Your task to perform on an android device: Set the phone to "Do not disturb". Image 0: 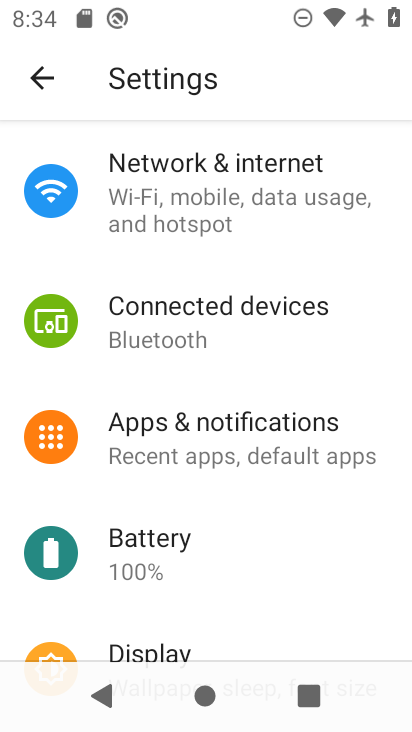
Step 0: press home button
Your task to perform on an android device: Set the phone to "Do not disturb". Image 1: 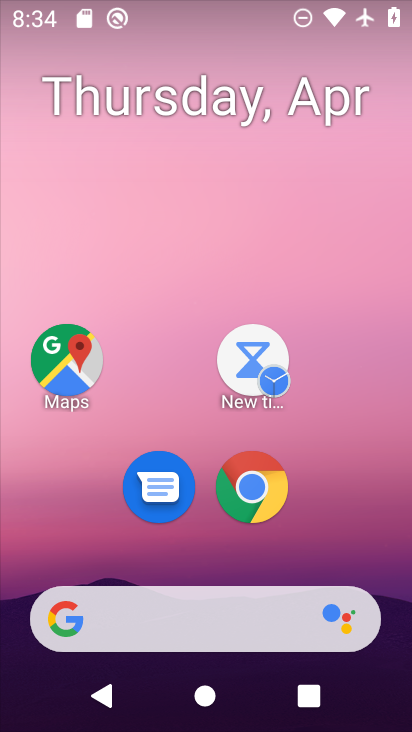
Step 1: drag from (316, 436) to (310, 116)
Your task to perform on an android device: Set the phone to "Do not disturb". Image 2: 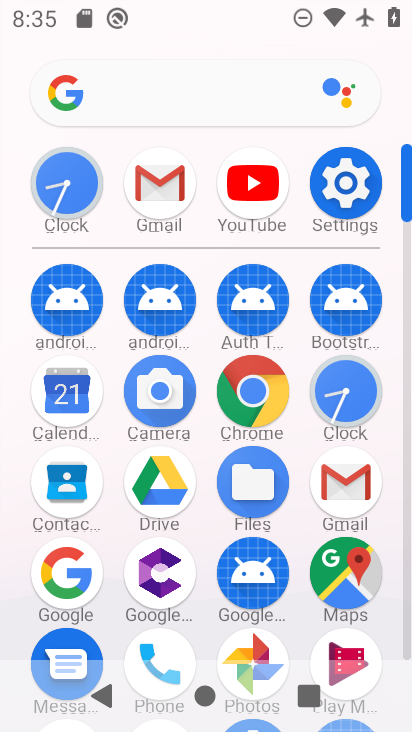
Step 2: click (333, 183)
Your task to perform on an android device: Set the phone to "Do not disturb". Image 3: 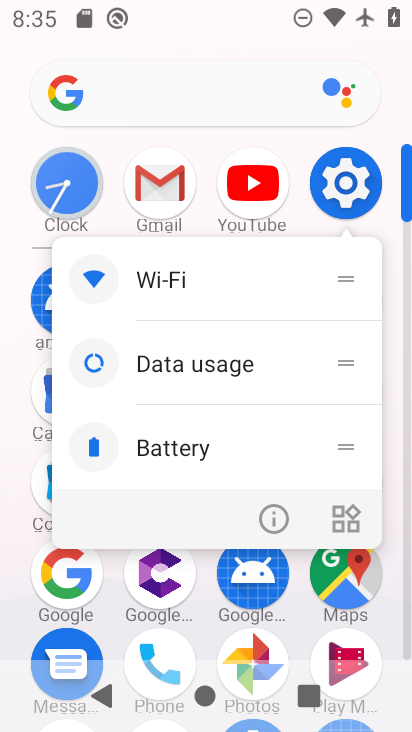
Step 3: click (333, 183)
Your task to perform on an android device: Set the phone to "Do not disturb". Image 4: 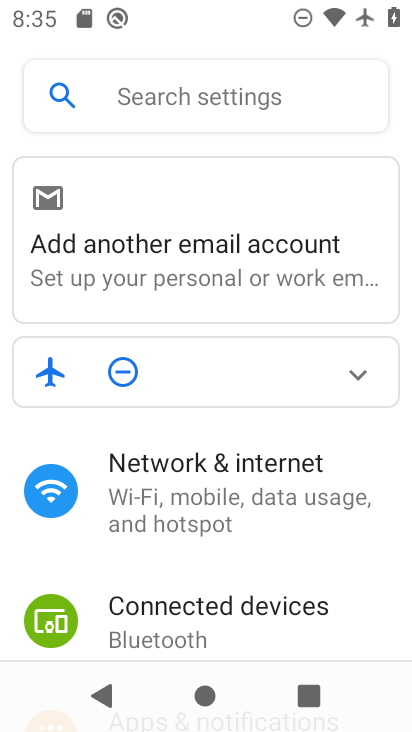
Step 4: drag from (257, 520) to (262, 154)
Your task to perform on an android device: Set the phone to "Do not disturb". Image 5: 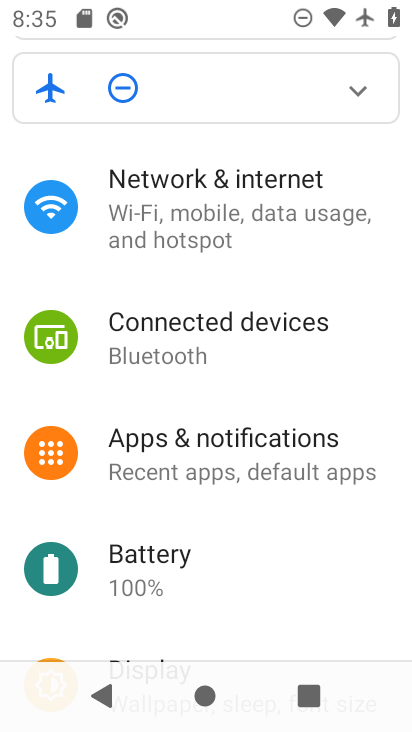
Step 5: drag from (250, 566) to (238, 193)
Your task to perform on an android device: Set the phone to "Do not disturb". Image 6: 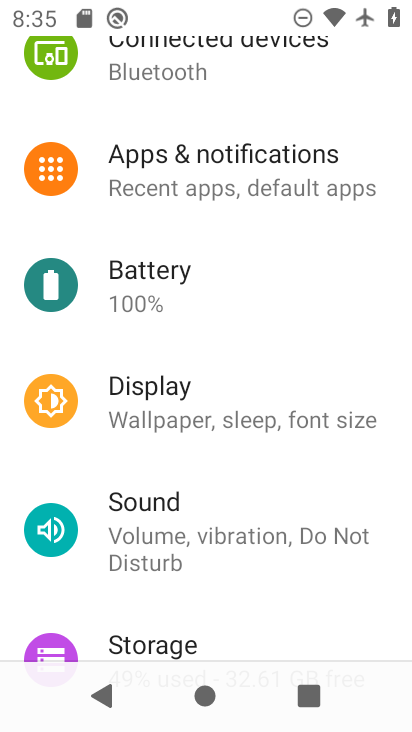
Step 6: click (225, 537)
Your task to perform on an android device: Set the phone to "Do not disturb". Image 7: 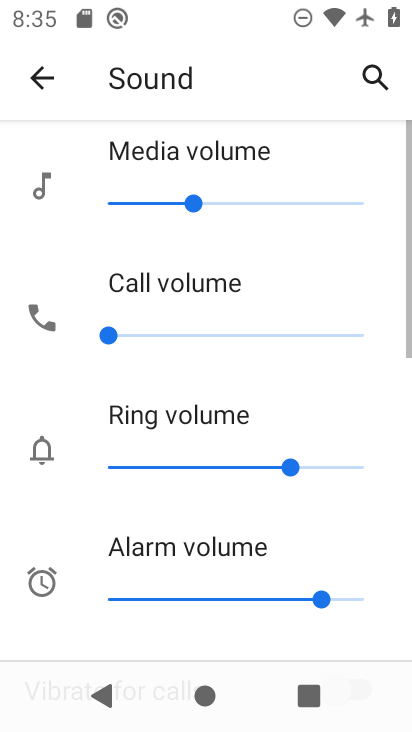
Step 7: drag from (149, 619) to (139, 168)
Your task to perform on an android device: Set the phone to "Do not disturb". Image 8: 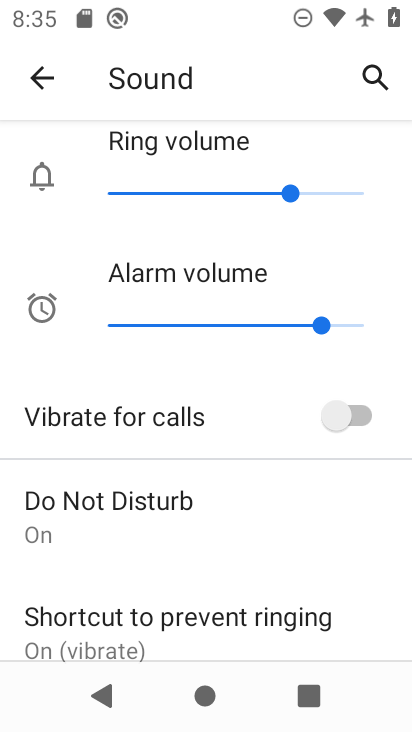
Step 8: click (83, 533)
Your task to perform on an android device: Set the phone to "Do not disturb". Image 9: 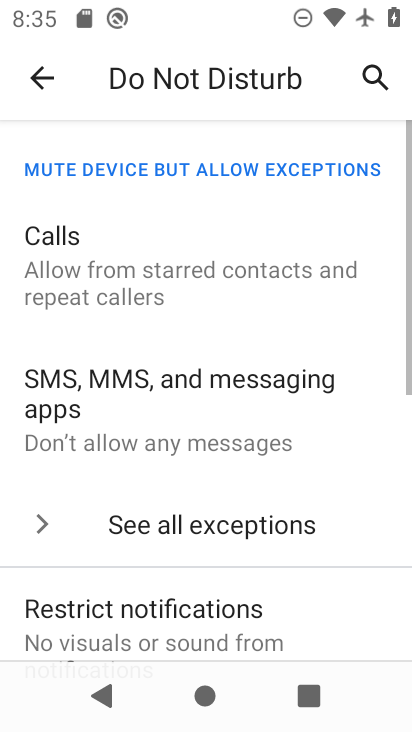
Step 9: task complete